Your task to perform on an android device: turn off improve location accuracy Image 0: 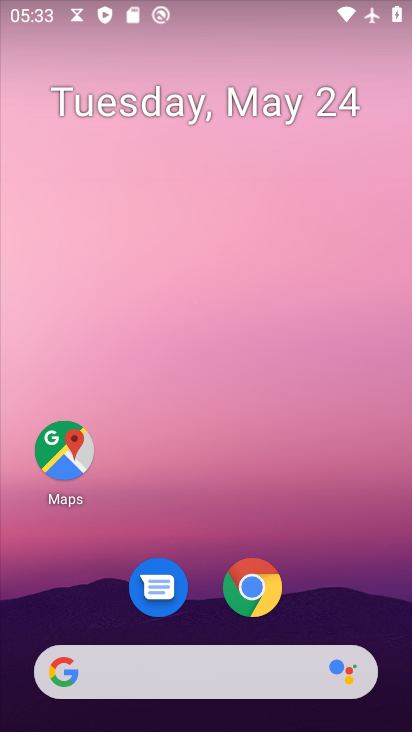
Step 0: drag from (271, 407) to (150, 25)
Your task to perform on an android device: turn off improve location accuracy Image 1: 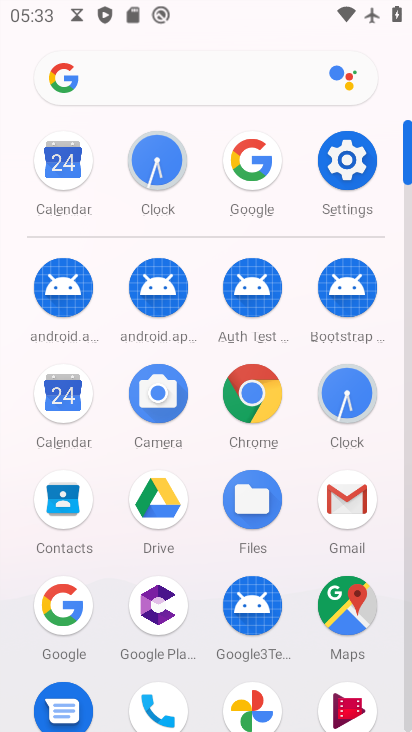
Step 1: click (356, 173)
Your task to perform on an android device: turn off improve location accuracy Image 2: 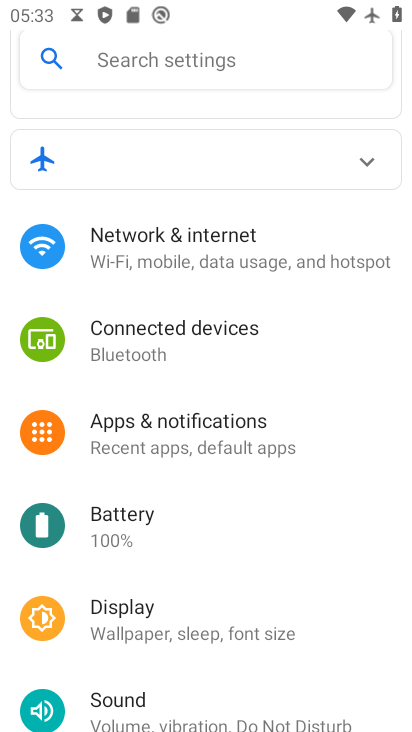
Step 2: drag from (252, 646) to (232, 82)
Your task to perform on an android device: turn off improve location accuracy Image 3: 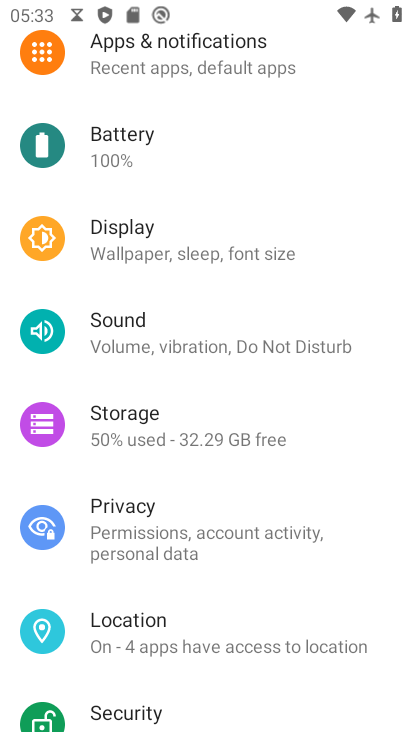
Step 3: click (189, 612)
Your task to perform on an android device: turn off improve location accuracy Image 4: 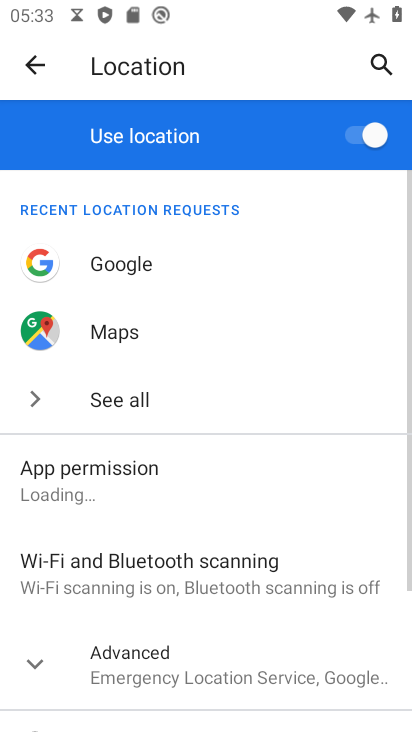
Step 4: click (235, 669)
Your task to perform on an android device: turn off improve location accuracy Image 5: 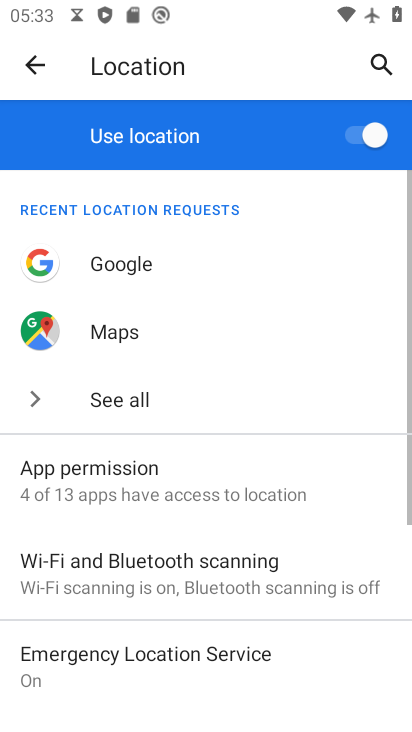
Step 5: drag from (245, 681) to (222, 354)
Your task to perform on an android device: turn off improve location accuracy Image 6: 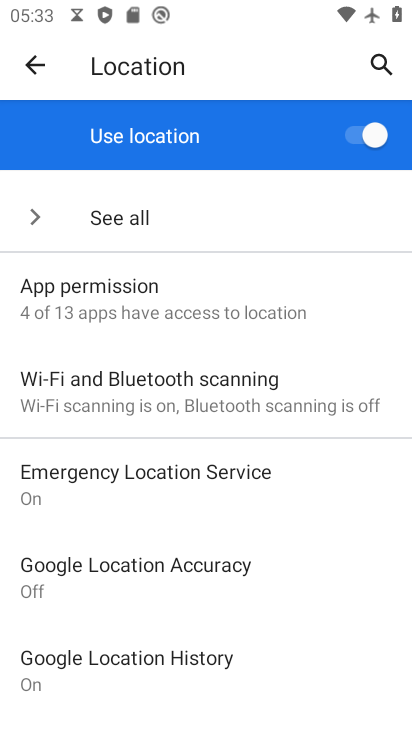
Step 6: click (195, 585)
Your task to perform on an android device: turn off improve location accuracy Image 7: 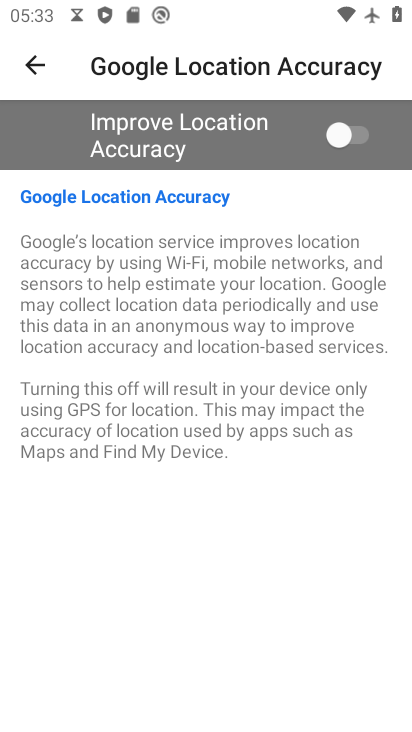
Step 7: task complete